Your task to perform on an android device: move an email to a new category in the gmail app Image 0: 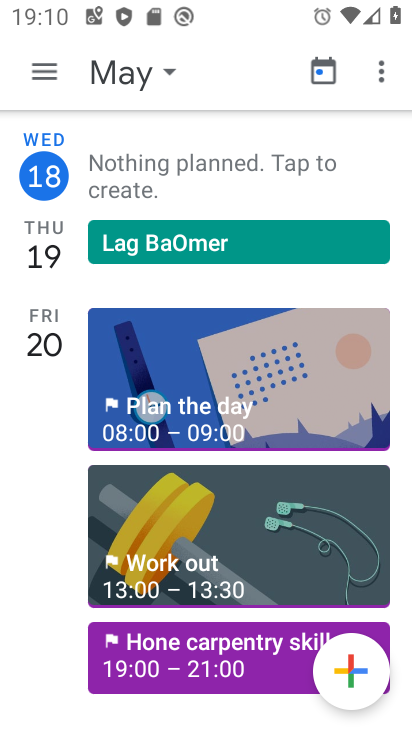
Step 0: press home button
Your task to perform on an android device: move an email to a new category in the gmail app Image 1: 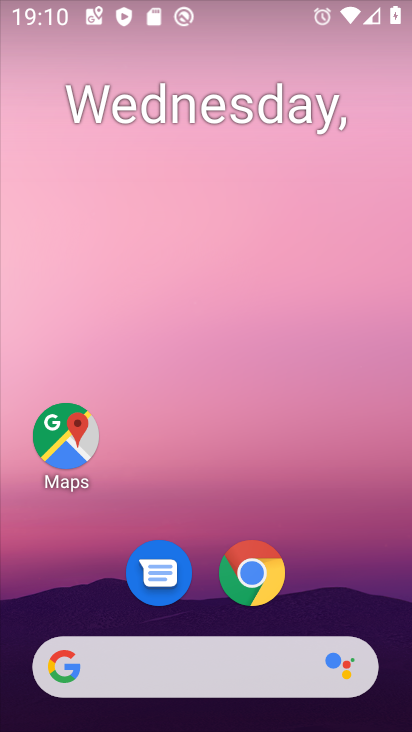
Step 1: drag from (367, 611) to (328, 48)
Your task to perform on an android device: move an email to a new category in the gmail app Image 2: 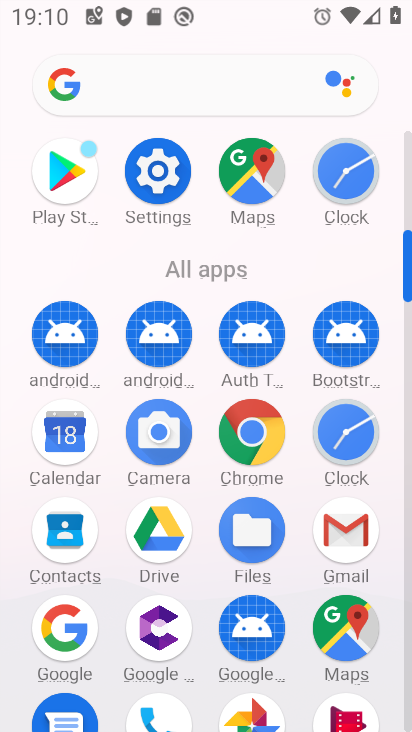
Step 2: click (340, 546)
Your task to perform on an android device: move an email to a new category in the gmail app Image 3: 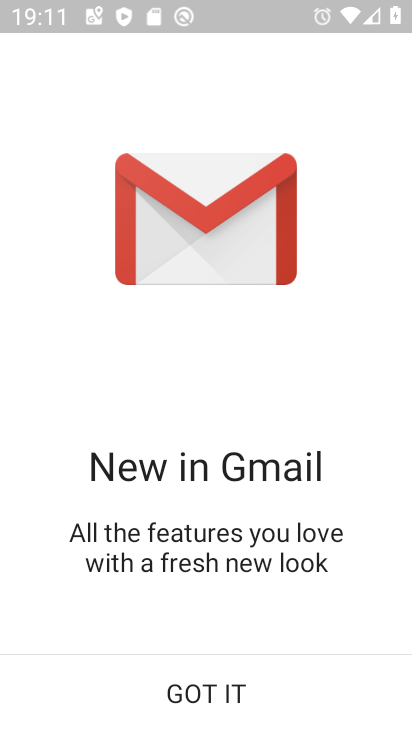
Step 3: click (285, 711)
Your task to perform on an android device: move an email to a new category in the gmail app Image 4: 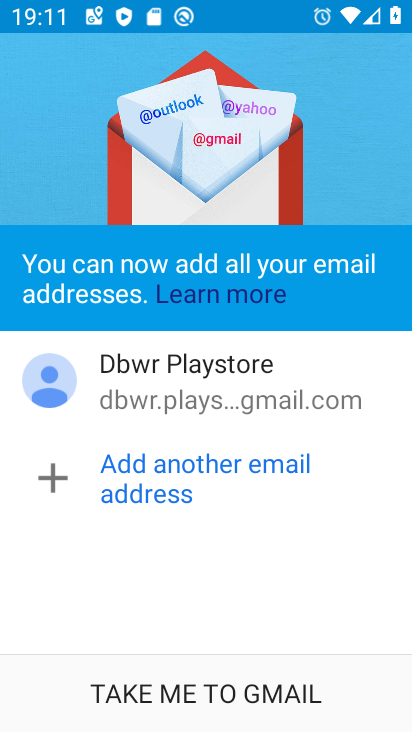
Step 4: click (235, 688)
Your task to perform on an android device: move an email to a new category in the gmail app Image 5: 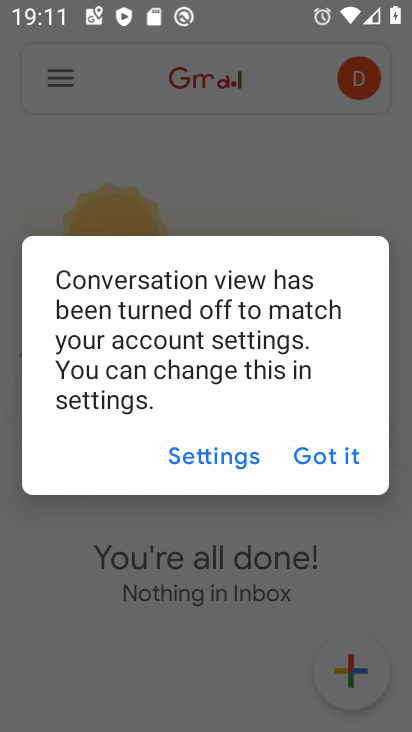
Step 5: click (325, 452)
Your task to perform on an android device: move an email to a new category in the gmail app Image 6: 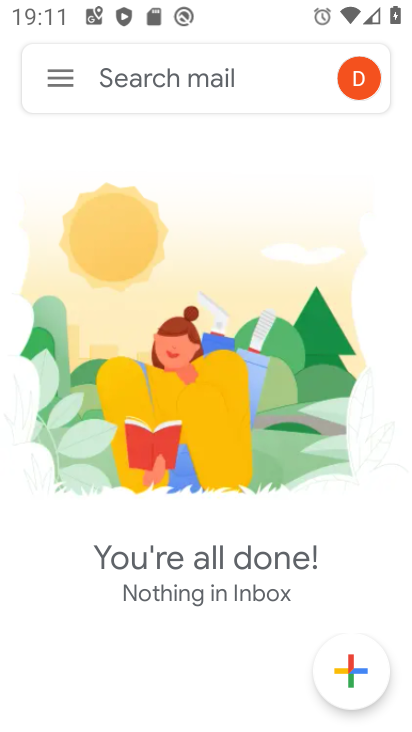
Step 6: click (64, 82)
Your task to perform on an android device: move an email to a new category in the gmail app Image 7: 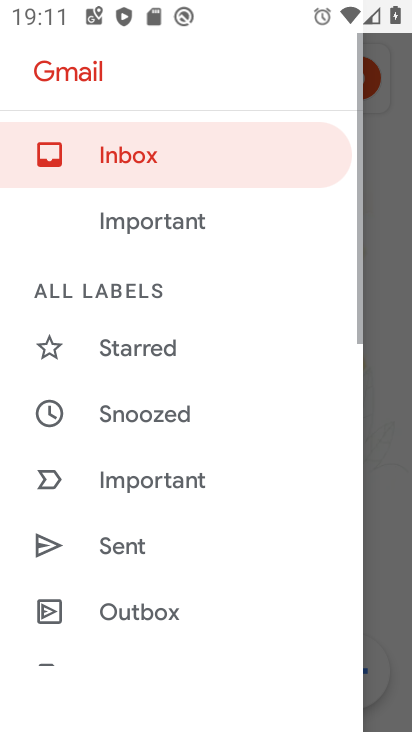
Step 7: drag from (156, 619) to (170, 264)
Your task to perform on an android device: move an email to a new category in the gmail app Image 8: 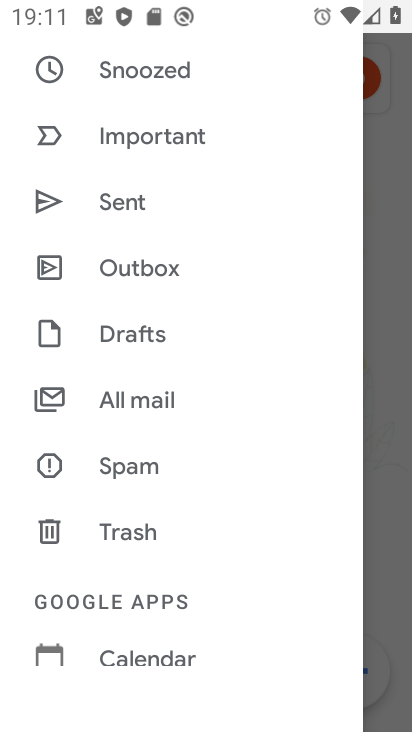
Step 8: drag from (222, 619) to (202, 392)
Your task to perform on an android device: move an email to a new category in the gmail app Image 9: 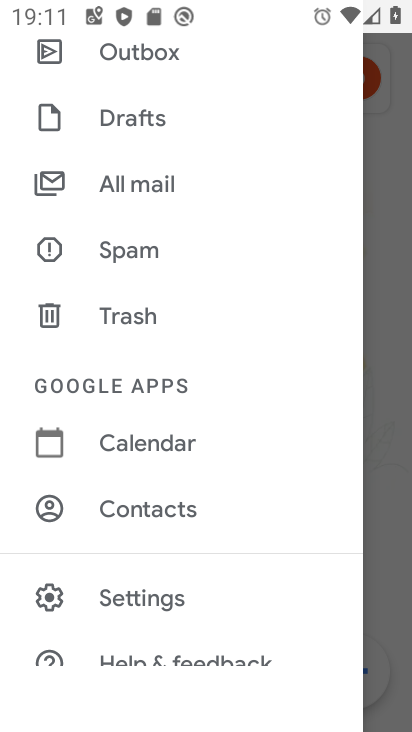
Step 9: click (168, 186)
Your task to perform on an android device: move an email to a new category in the gmail app Image 10: 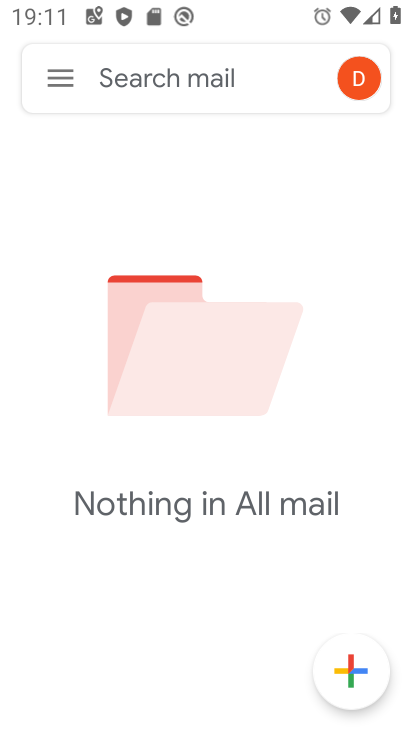
Step 10: task complete